Your task to perform on an android device: Do I have any events this weekend? Image 0: 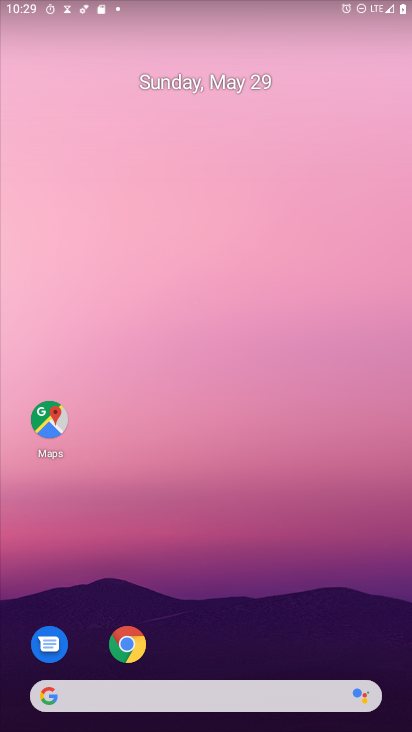
Step 0: drag from (143, 729) to (208, 62)
Your task to perform on an android device: Do I have any events this weekend? Image 1: 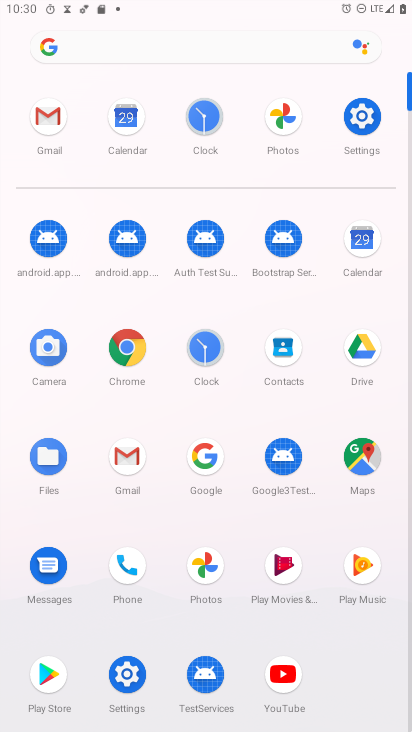
Step 1: click (360, 244)
Your task to perform on an android device: Do I have any events this weekend? Image 2: 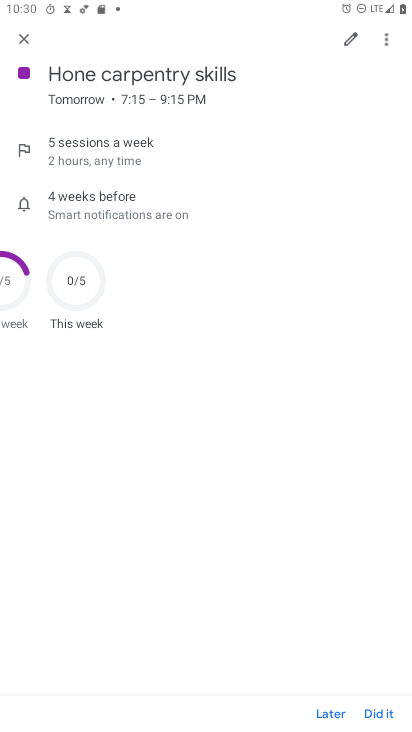
Step 2: click (21, 36)
Your task to perform on an android device: Do I have any events this weekend? Image 3: 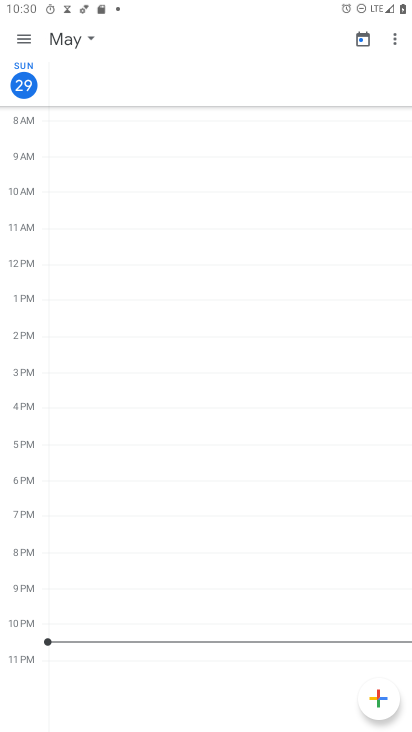
Step 3: click (25, 42)
Your task to perform on an android device: Do I have any events this weekend? Image 4: 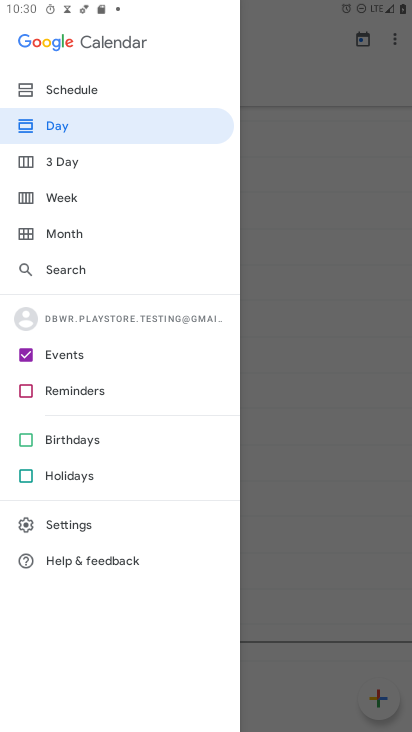
Step 4: click (97, 168)
Your task to perform on an android device: Do I have any events this weekend? Image 5: 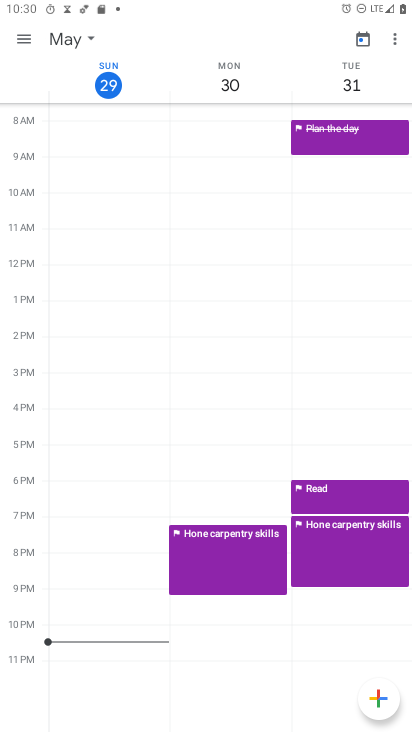
Step 5: click (90, 40)
Your task to perform on an android device: Do I have any events this weekend? Image 6: 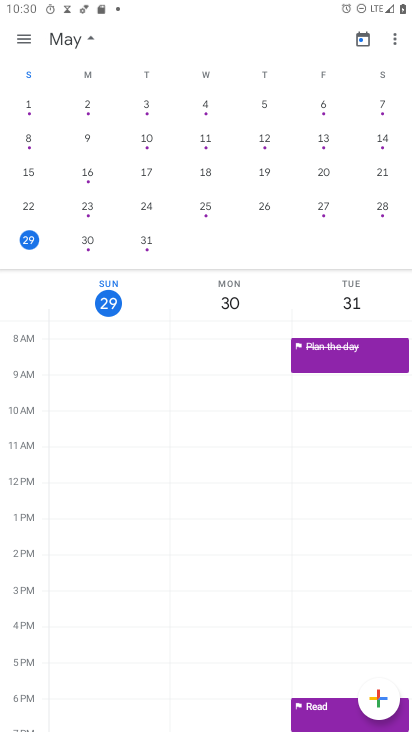
Step 6: drag from (383, 242) to (8, 201)
Your task to perform on an android device: Do I have any events this weekend? Image 7: 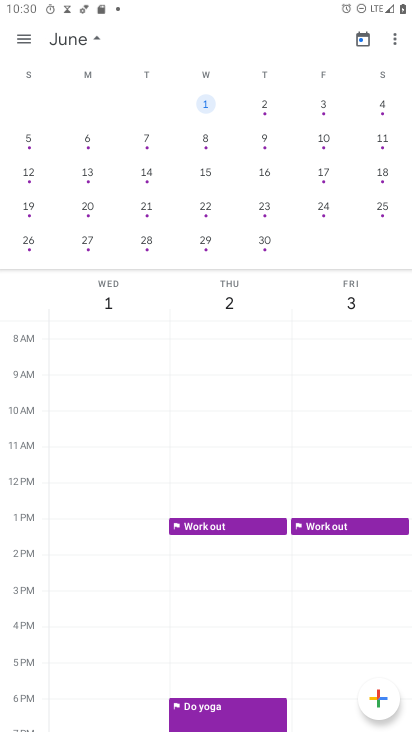
Step 7: click (268, 107)
Your task to perform on an android device: Do I have any events this weekend? Image 8: 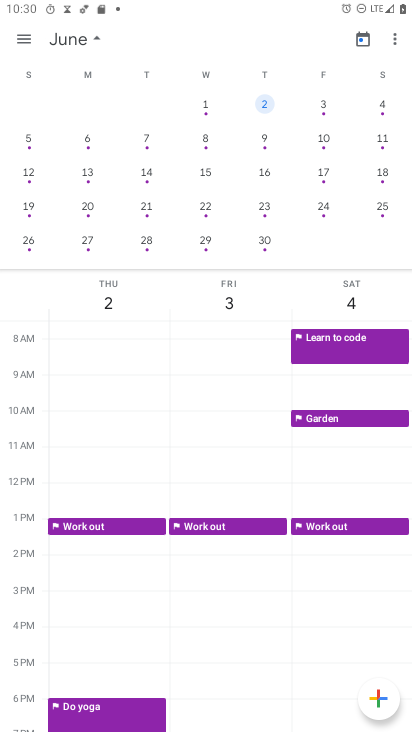
Step 8: click (97, 31)
Your task to perform on an android device: Do I have any events this weekend? Image 9: 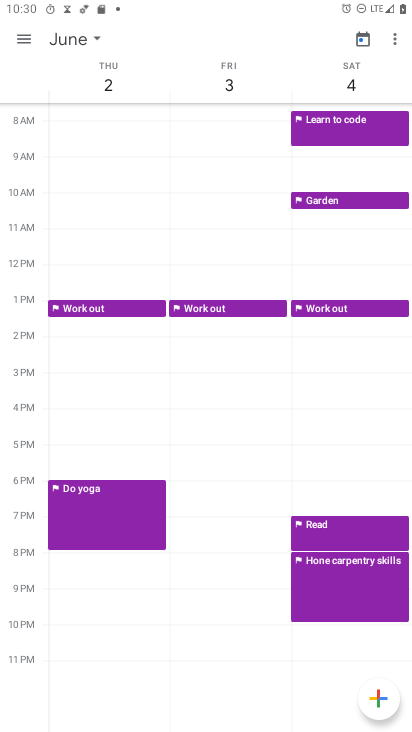
Step 9: task complete